Your task to perform on an android device: What is the news today? Image 0: 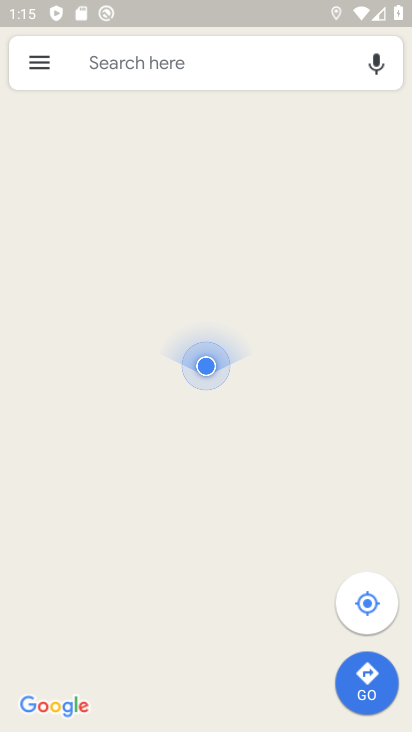
Step 0: press home button
Your task to perform on an android device: What is the news today? Image 1: 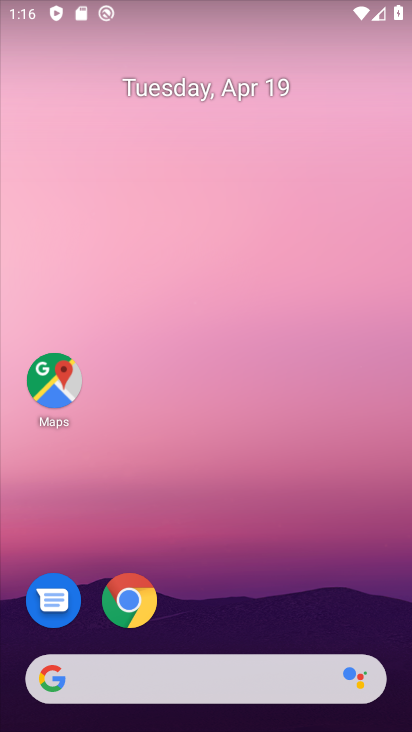
Step 1: task complete